Your task to perform on an android device: toggle improve location accuracy Image 0: 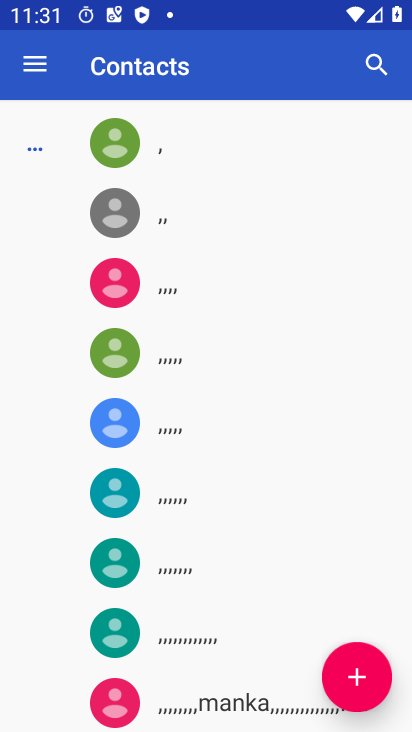
Step 0: press home button
Your task to perform on an android device: toggle improve location accuracy Image 1: 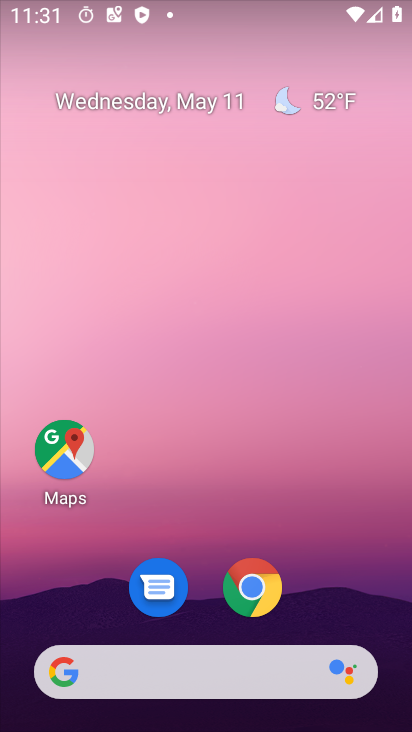
Step 1: drag from (193, 678) to (241, 403)
Your task to perform on an android device: toggle improve location accuracy Image 2: 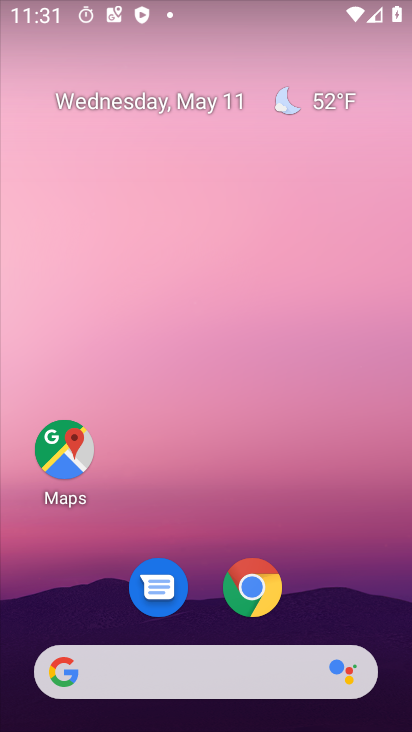
Step 2: drag from (207, 686) to (166, 259)
Your task to perform on an android device: toggle improve location accuracy Image 3: 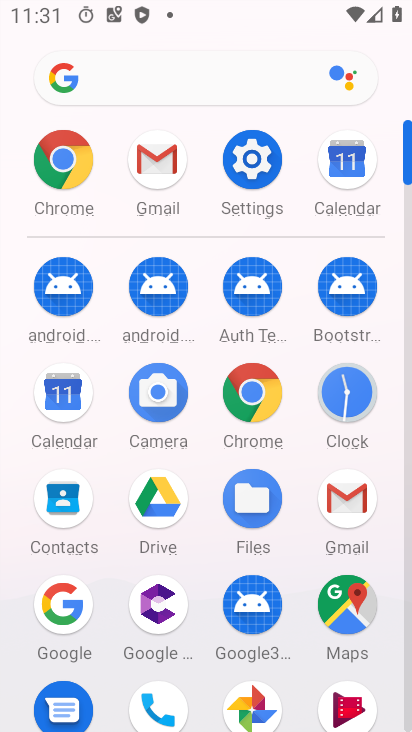
Step 3: click (247, 179)
Your task to perform on an android device: toggle improve location accuracy Image 4: 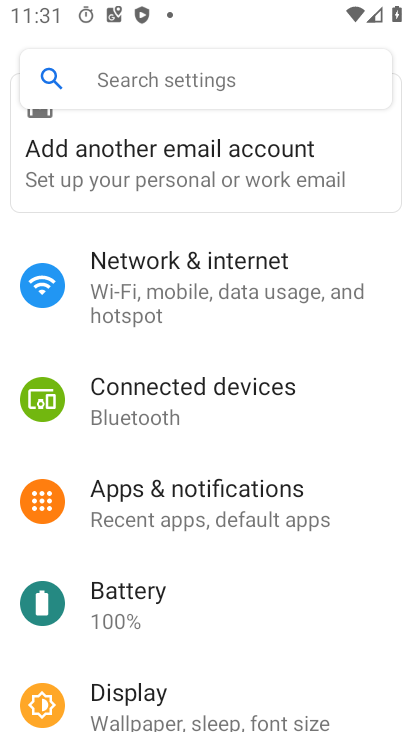
Step 4: click (192, 91)
Your task to perform on an android device: toggle improve location accuracy Image 5: 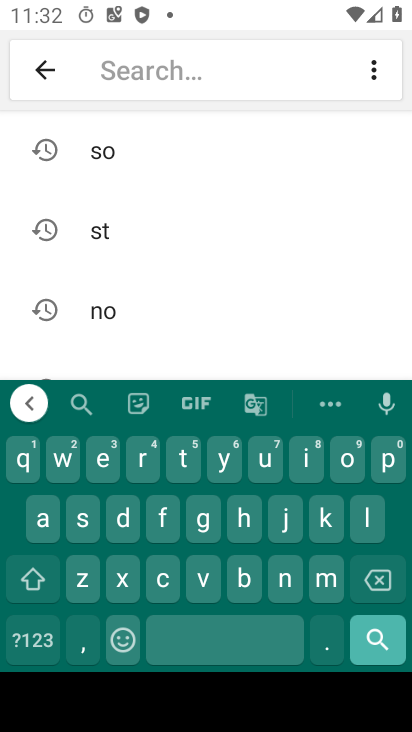
Step 5: click (365, 533)
Your task to perform on an android device: toggle improve location accuracy Image 6: 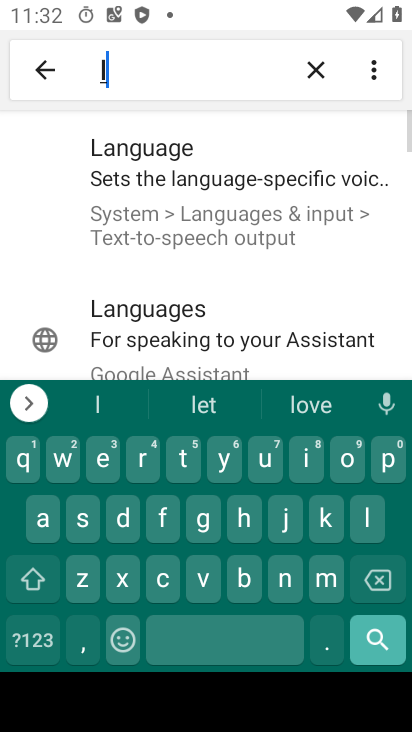
Step 6: click (339, 461)
Your task to perform on an android device: toggle improve location accuracy Image 7: 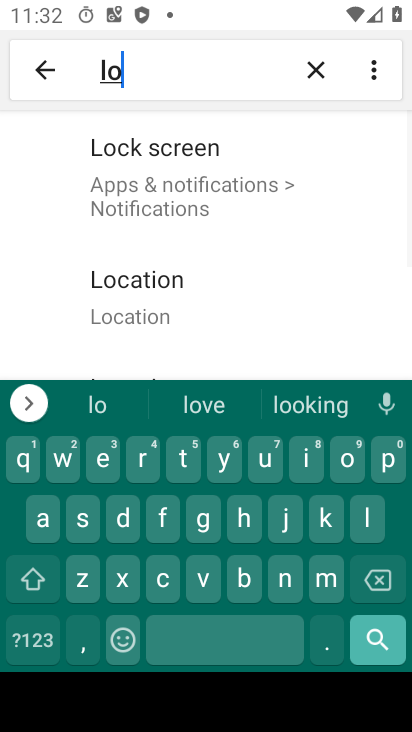
Step 7: click (120, 294)
Your task to perform on an android device: toggle improve location accuracy Image 8: 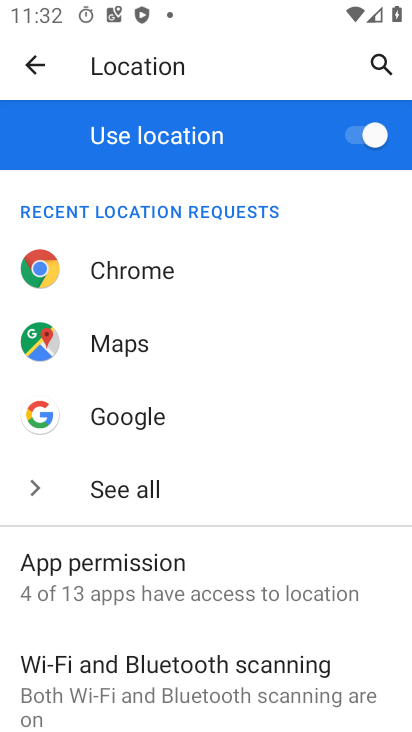
Step 8: drag from (179, 629) to (202, 414)
Your task to perform on an android device: toggle improve location accuracy Image 9: 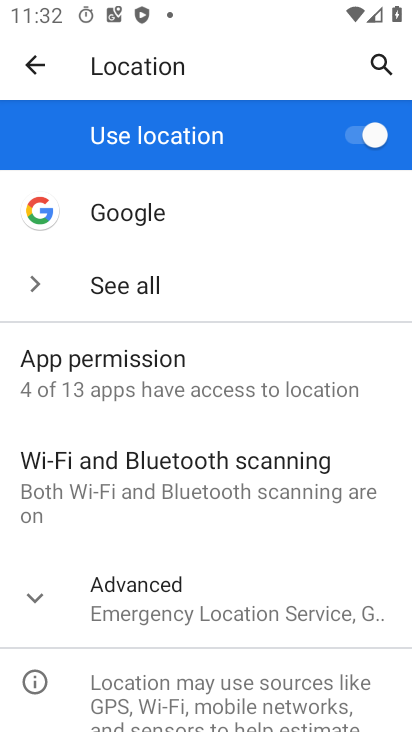
Step 9: click (53, 596)
Your task to perform on an android device: toggle improve location accuracy Image 10: 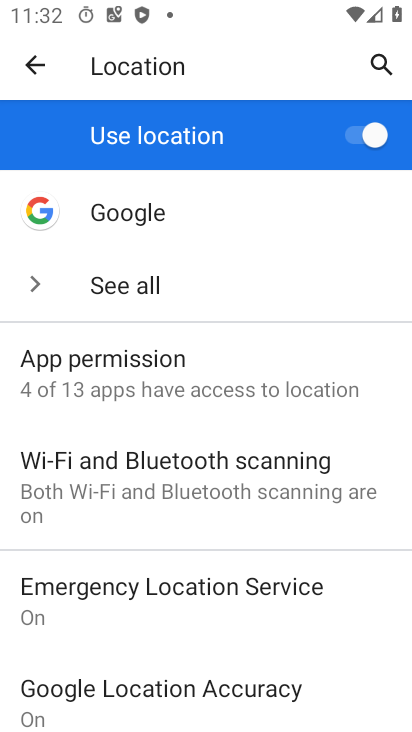
Step 10: click (171, 679)
Your task to perform on an android device: toggle improve location accuracy Image 11: 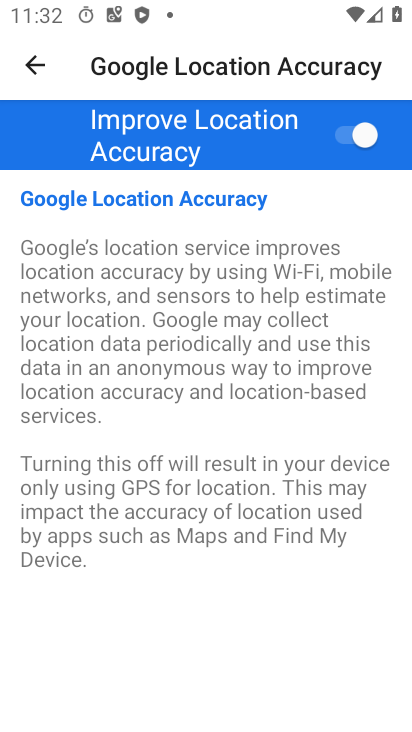
Step 11: click (336, 164)
Your task to perform on an android device: toggle improve location accuracy Image 12: 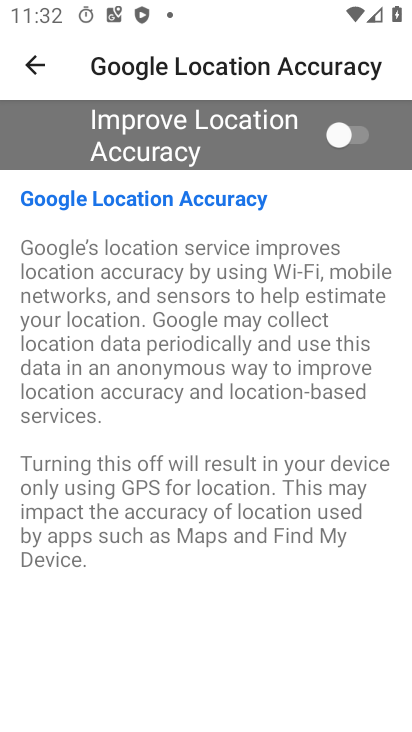
Step 12: click (335, 164)
Your task to perform on an android device: toggle improve location accuracy Image 13: 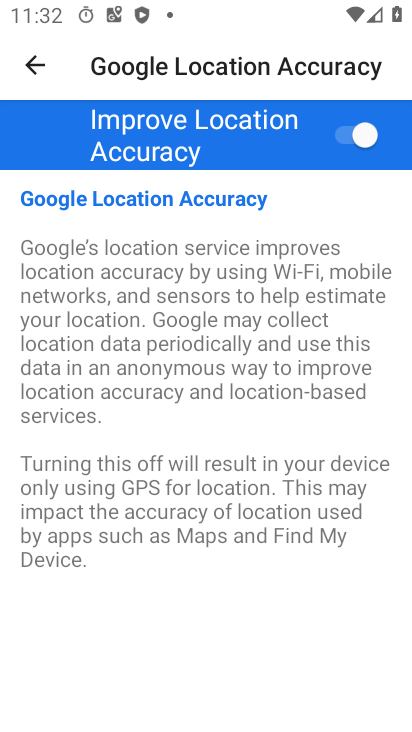
Step 13: task complete